Your task to perform on an android device: Search for pizza restaurants on Maps Image 0: 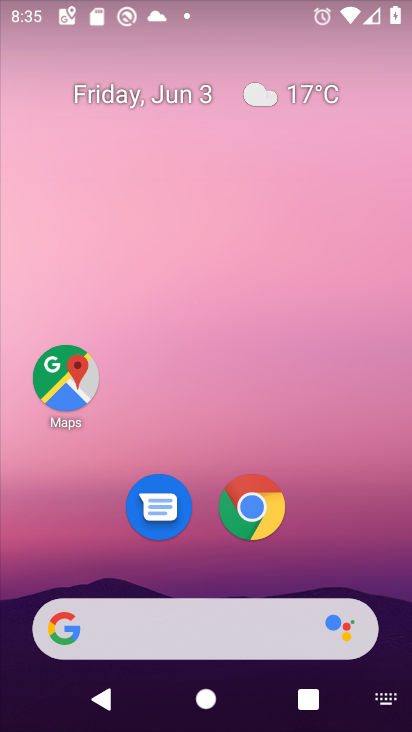
Step 0: click (191, 15)
Your task to perform on an android device: Search for pizza restaurants on Maps Image 1: 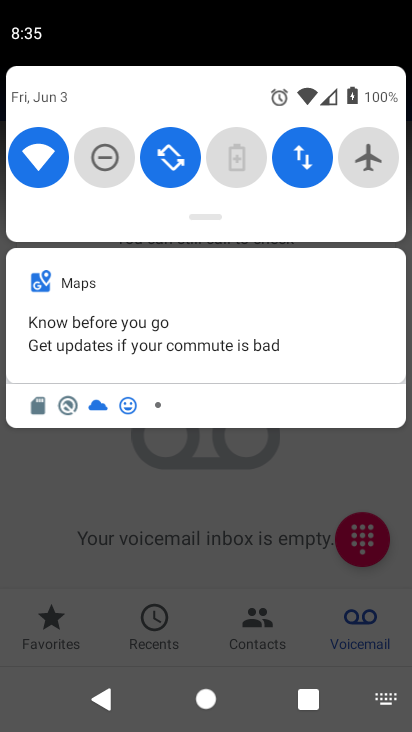
Step 1: press home button
Your task to perform on an android device: Search for pizza restaurants on Maps Image 2: 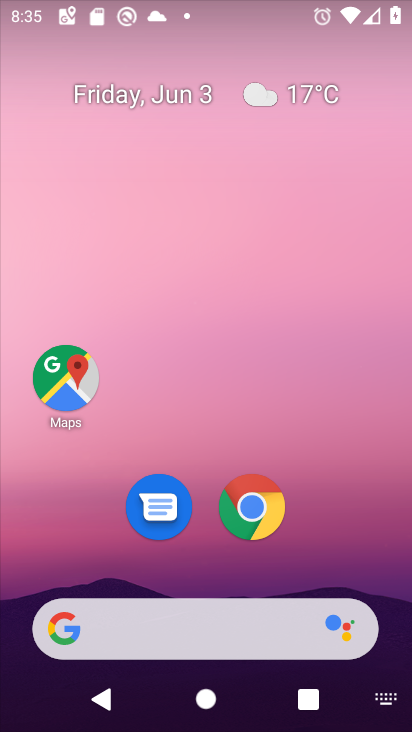
Step 2: click (73, 388)
Your task to perform on an android device: Search for pizza restaurants on Maps Image 3: 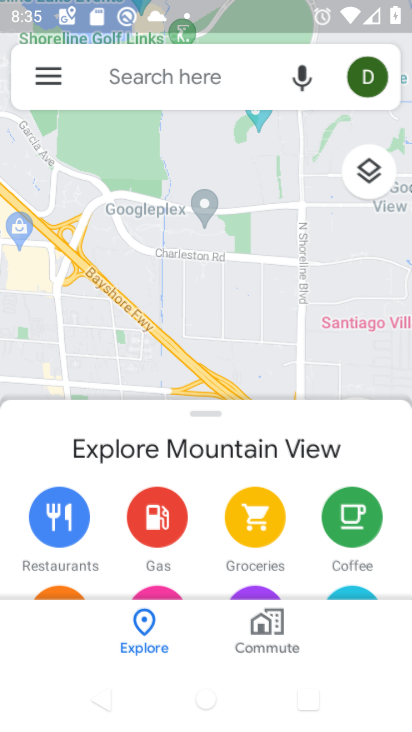
Step 3: click (202, 63)
Your task to perform on an android device: Search for pizza restaurants on Maps Image 4: 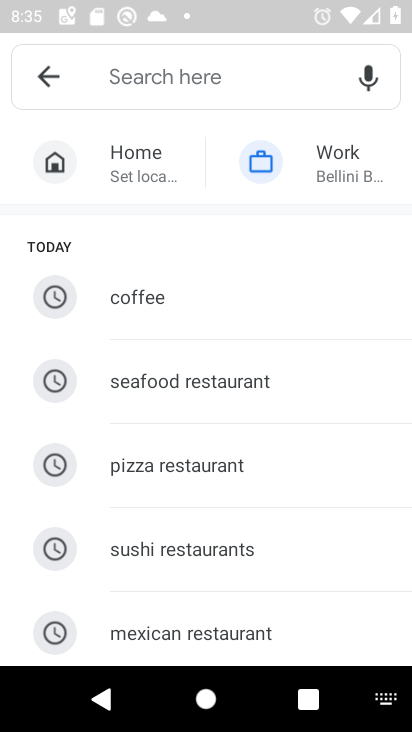
Step 4: click (200, 458)
Your task to perform on an android device: Search for pizza restaurants on Maps Image 5: 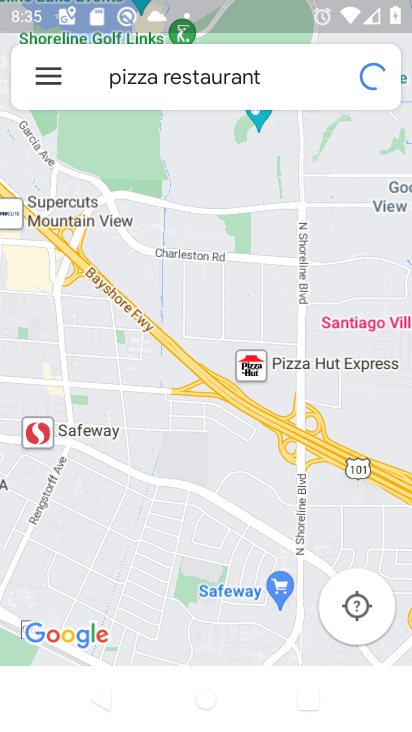
Step 5: task complete